Your task to perform on an android device: set the timer Image 0: 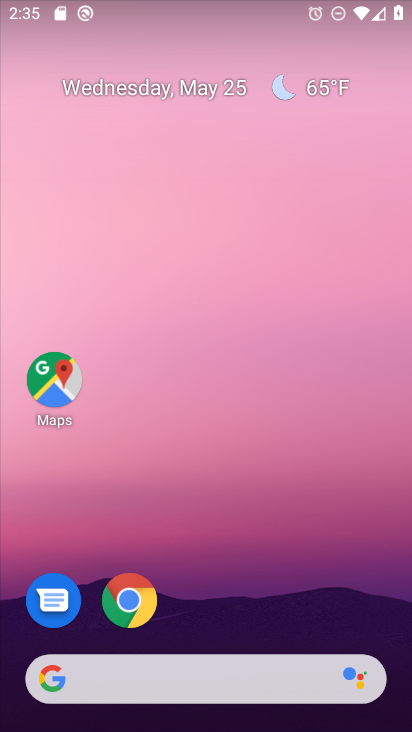
Step 0: drag from (197, 563) to (193, 145)
Your task to perform on an android device: set the timer Image 1: 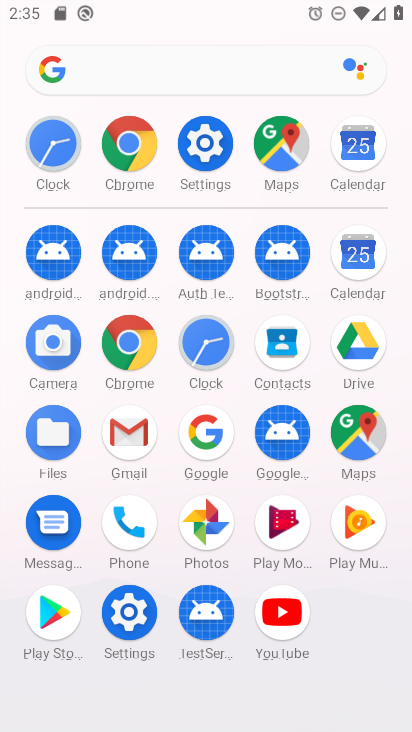
Step 1: click (221, 338)
Your task to perform on an android device: set the timer Image 2: 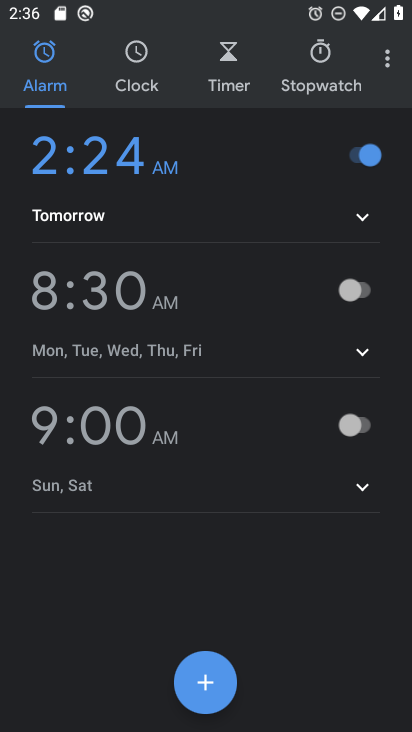
Step 2: click (207, 89)
Your task to perform on an android device: set the timer Image 3: 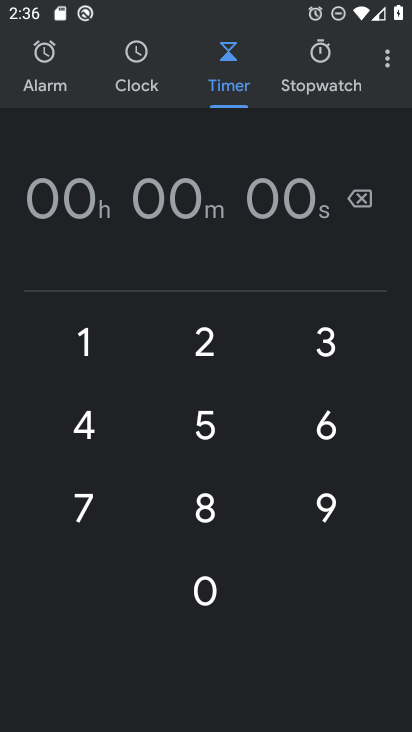
Step 3: click (206, 448)
Your task to perform on an android device: set the timer Image 4: 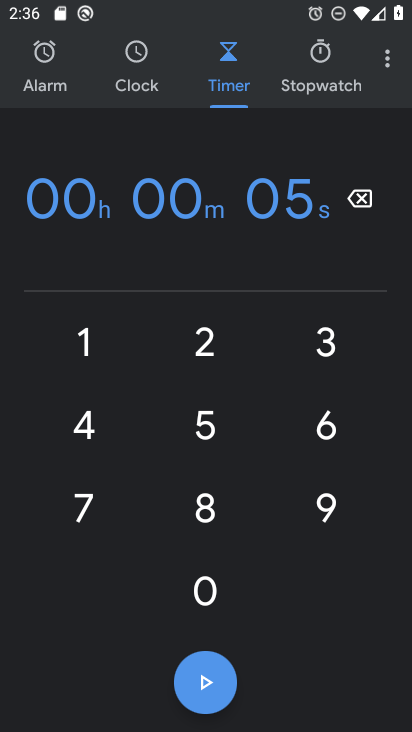
Step 4: task complete